Your task to perform on an android device: Open the phone app and click the voicemail tab. Image 0: 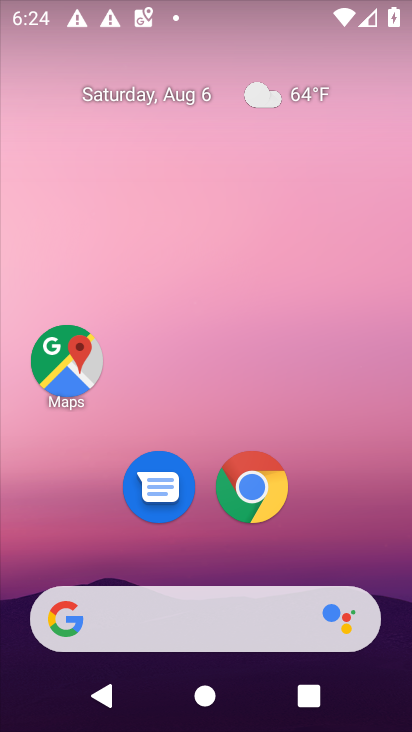
Step 0: drag from (188, 501) to (278, 47)
Your task to perform on an android device: Open the phone app and click the voicemail tab. Image 1: 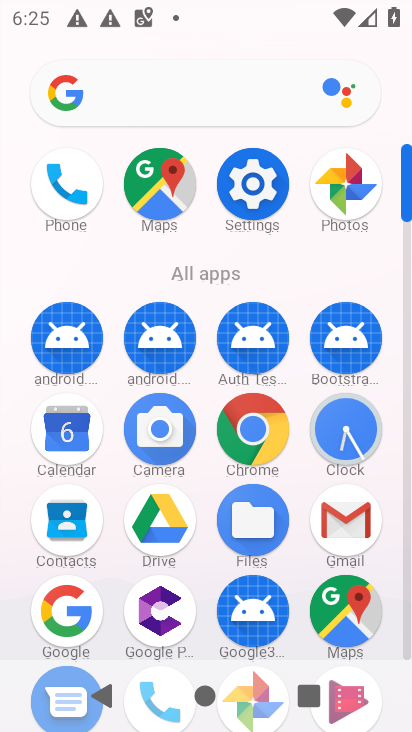
Step 1: drag from (255, 581) to (294, 94)
Your task to perform on an android device: Open the phone app and click the voicemail tab. Image 2: 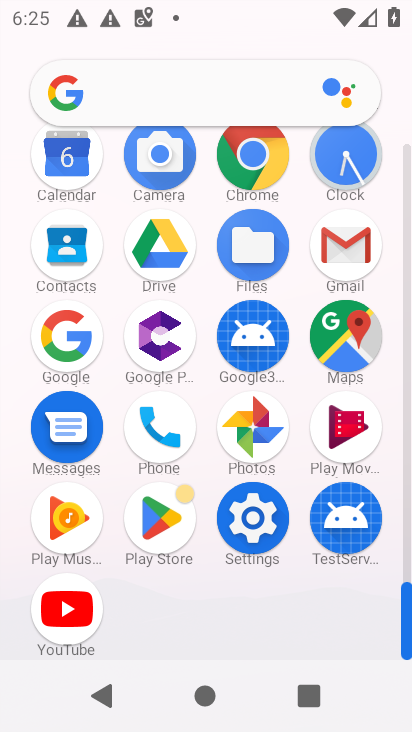
Step 2: click (155, 440)
Your task to perform on an android device: Open the phone app and click the voicemail tab. Image 3: 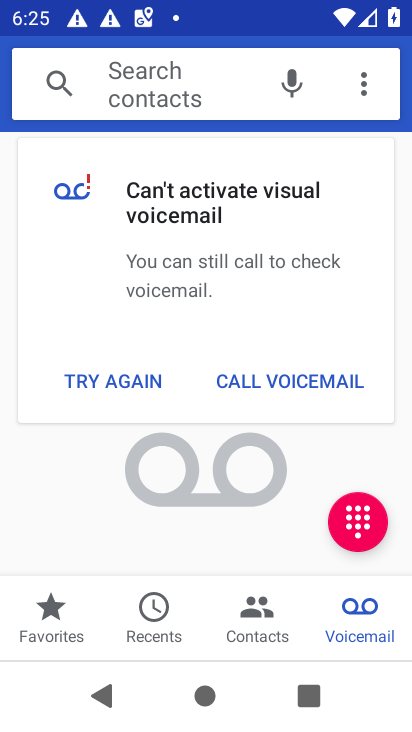
Step 3: task complete